Your task to perform on an android device: add a contact Image 0: 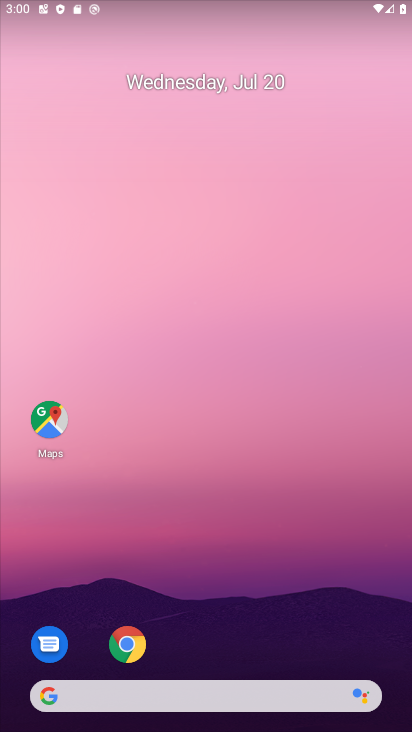
Step 0: drag from (211, 654) to (209, 284)
Your task to perform on an android device: add a contact Image 1: 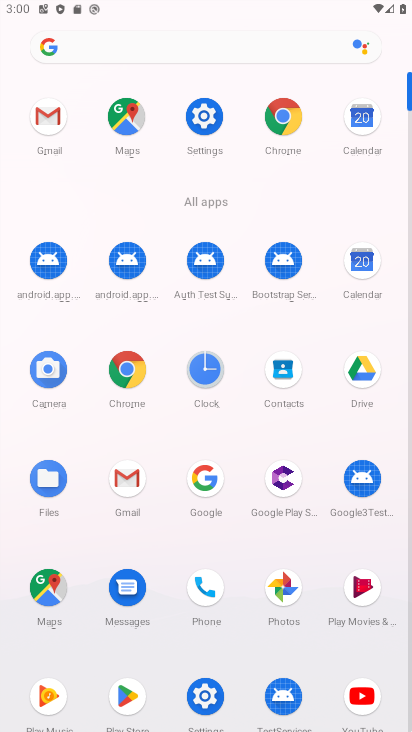
Step 1: click (282, 395)
Your task to perform on an android device: add a contact Image 2: 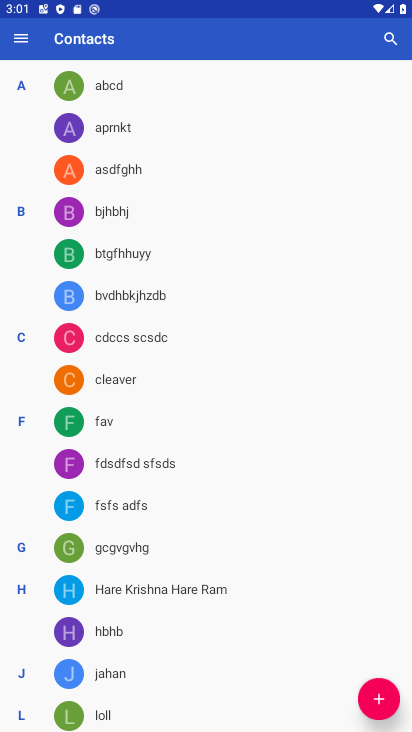
Step 2: click (385, 691)
Your task to perform on an android device: add a contact Image 3: 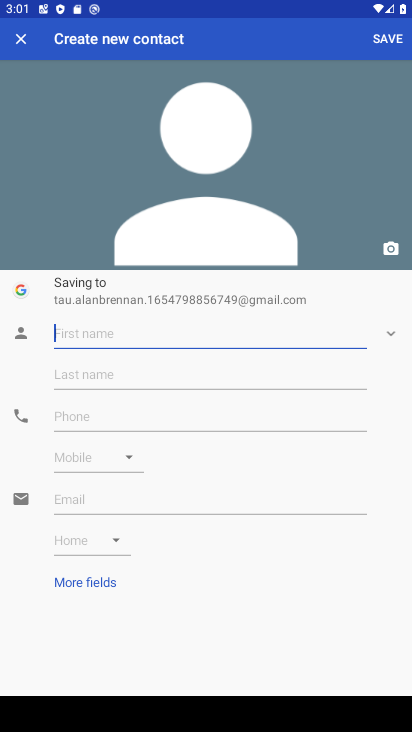
Step 3: type "dfsdf"
Your task to perform on an android device: add a contact Image 4: 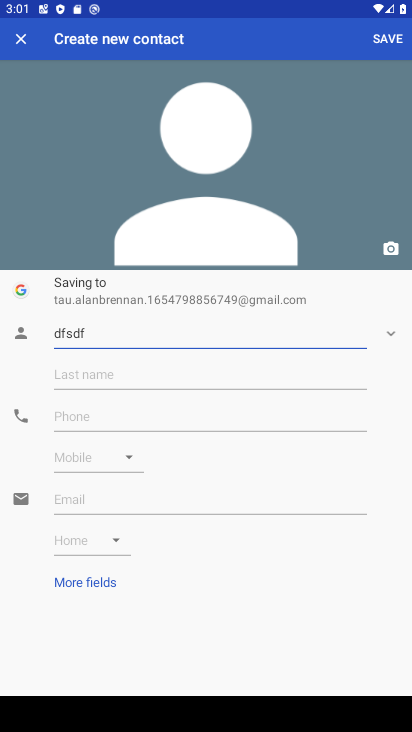
Step 4: click (164, 374)
Your task to perform on an android device: add a contact Image 5: 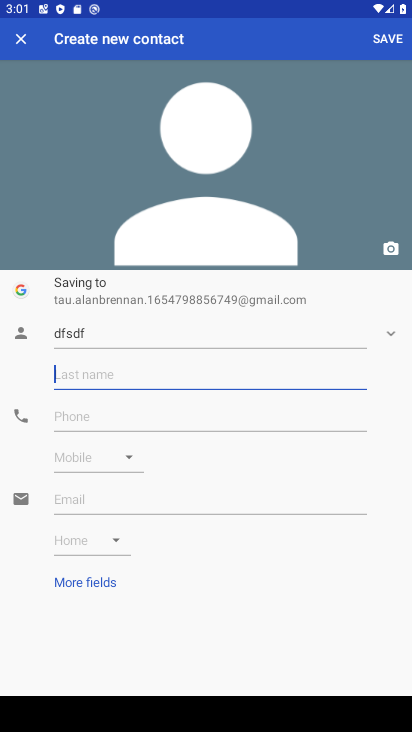
Step 5: type "sddfs"
Your task to perform on an android device: add a contact Image 6: 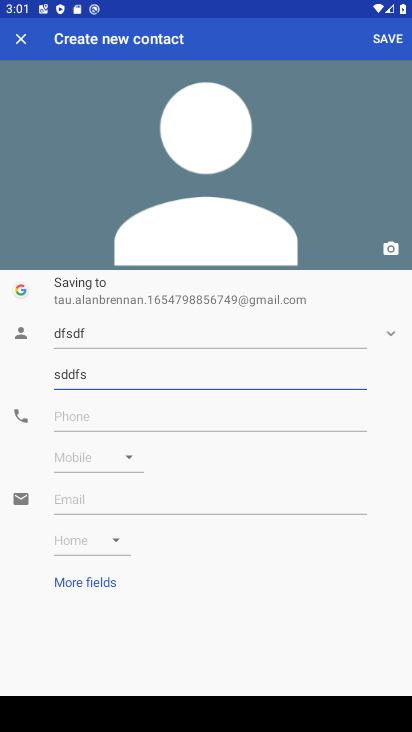
Step 6: click (119, 418)
Your task to perform on an android device: add a contact Image 7: 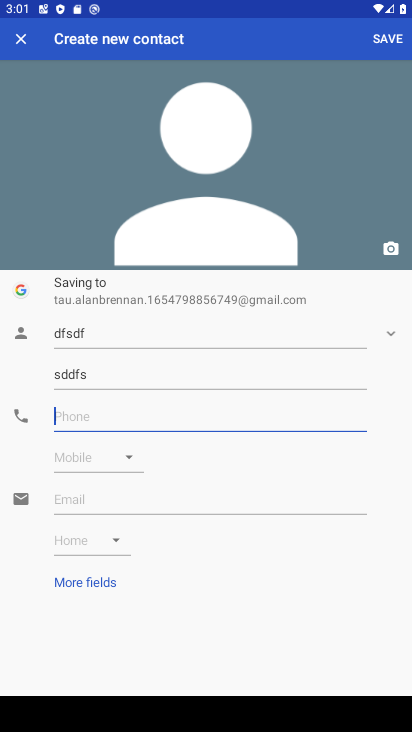
Step 7: type "3424324525"
Your task to perform on an android device: add a contact Image 8: 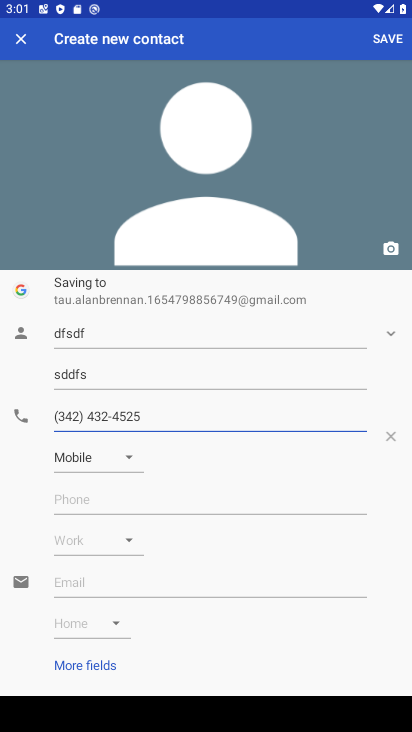
Step 8: click (377, 36)
Your task to perform on an android device: add a contact Image 9: 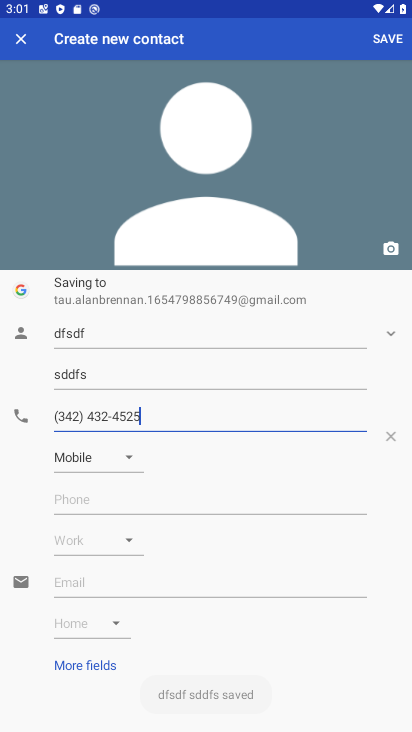
Step 9: task complete